Your task to perform on an android device: Open Android settings Image 0: 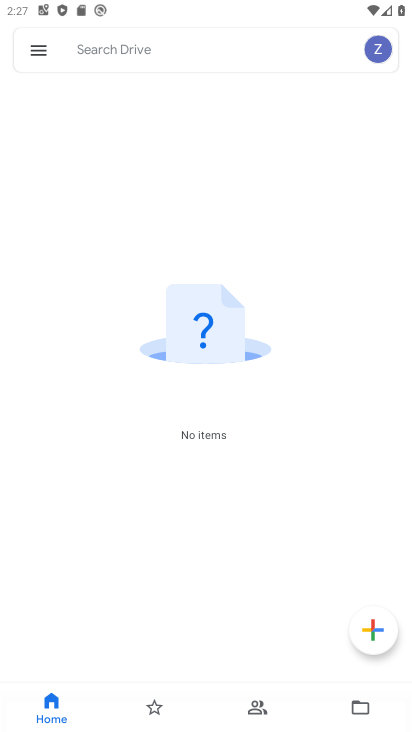
Step 0: press home button
Your task to perform on an android device: Open Android settings Image 1: 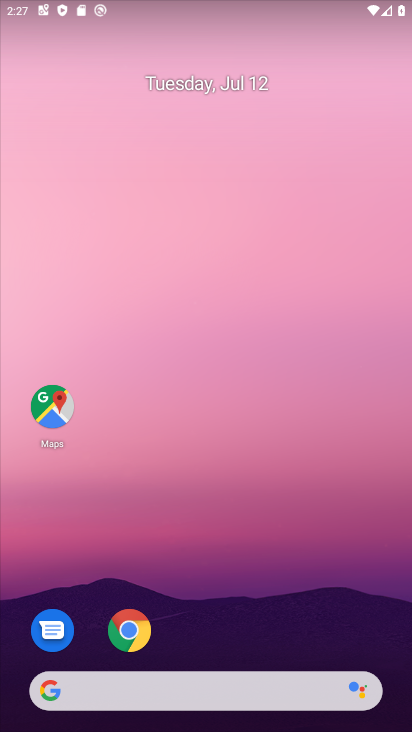
Step 1: drag from (380, 635) to (335, 116)
Your task to perform on an android device: Open Android settings Image 2: 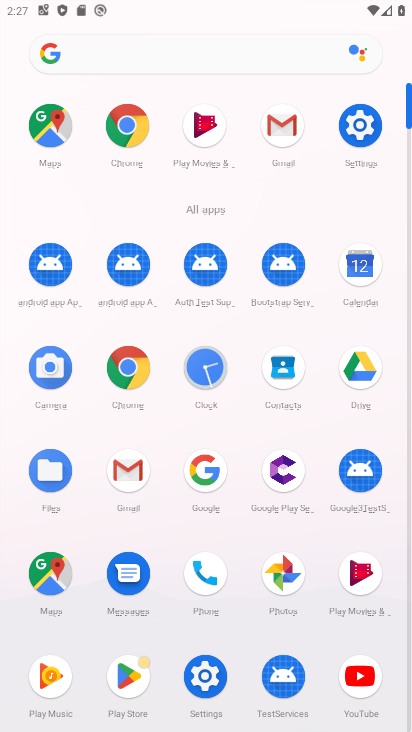
Step 2: click (206, 676)
Your task to perform on an android device: Open Android settings Image 3: 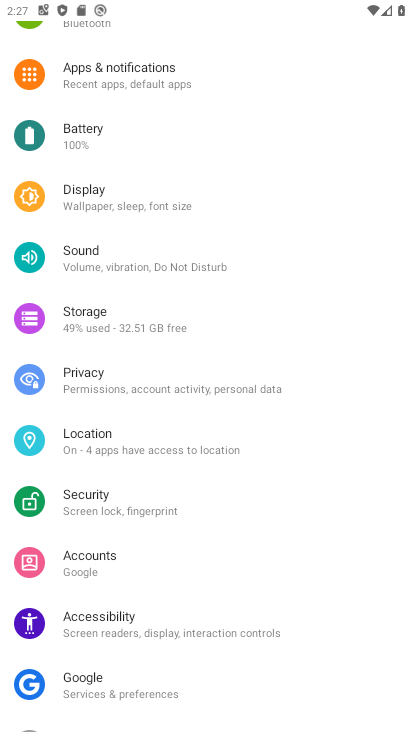
Step 3: drag from (307, 657) to (289, 317)
Your task to perform on an android device: Open Android settings Image 4: 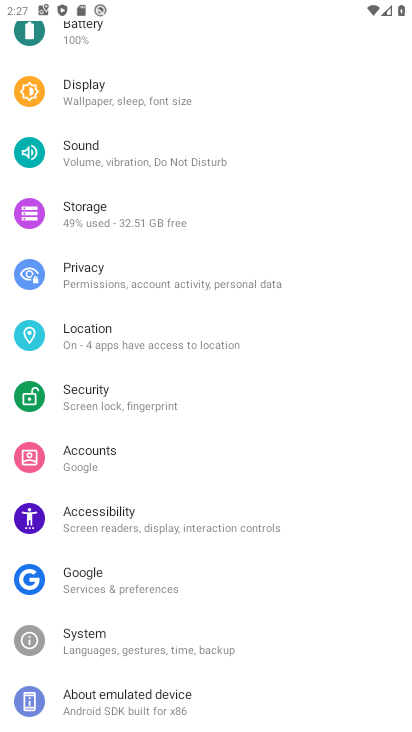
Step 4: drag from (267, 687) to (299, 404)
Your task to perform on an android device: Open Android settings Image 5: 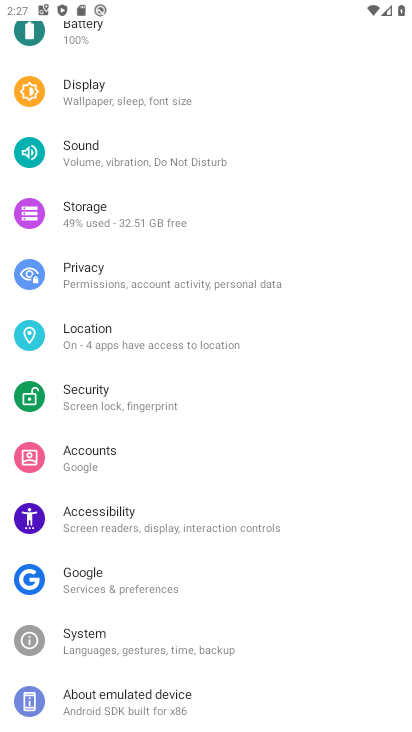
Step 5: click (110, 700)
Your task to perform on an android device: Open Android settings Image 6: 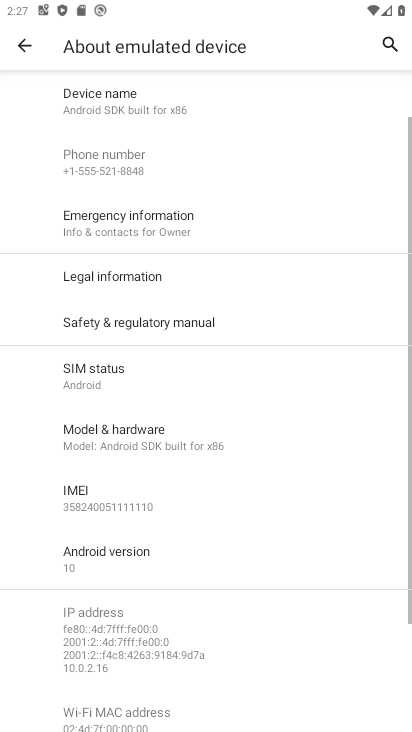
Step 6: task complete